Your task to perform on an android device: What time is it in Sydney? Image 0: 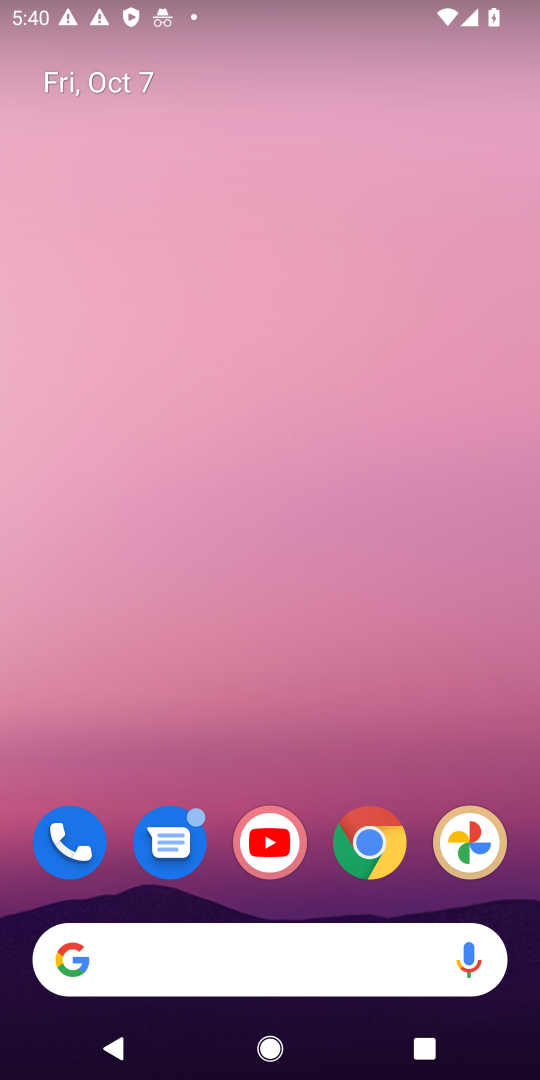
Step 0: drag from (230, 775) to (221, 134)
Your task to perform on an android device: What time is it in Sydney? Image 1: 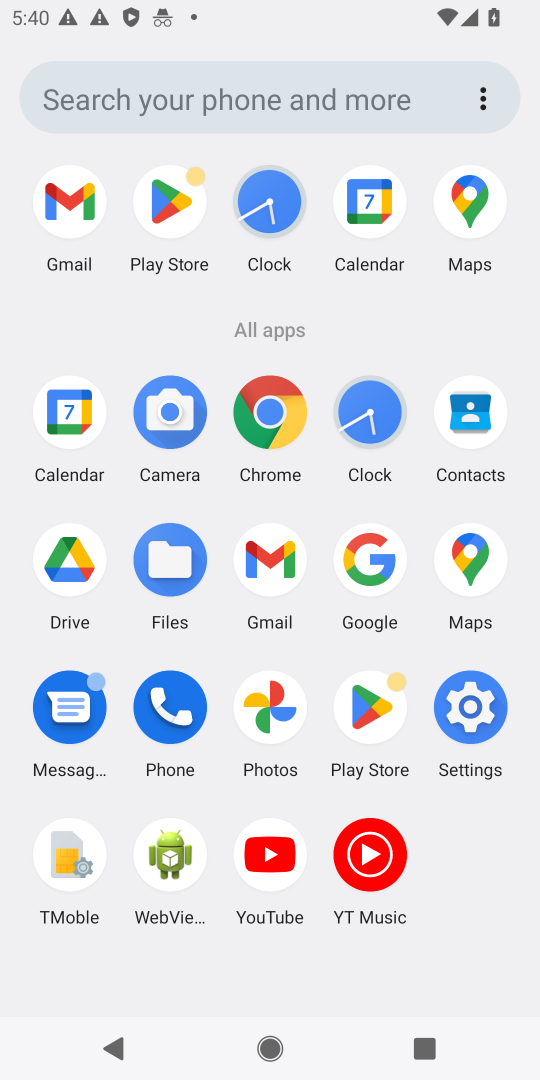
Step 1: click (382, 570)
Your task to perform on an android device: What time is it in Sydney? Image 2: 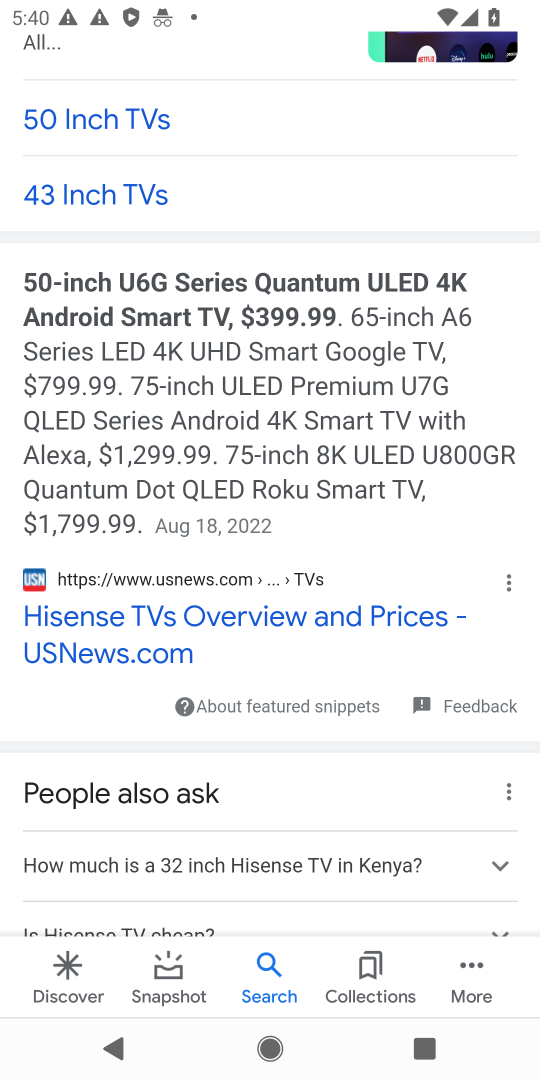
Step 2: drag from (207, 204) to (249, 935)
Your task to perform on an android device: What time is it in Sydney? Image 3: 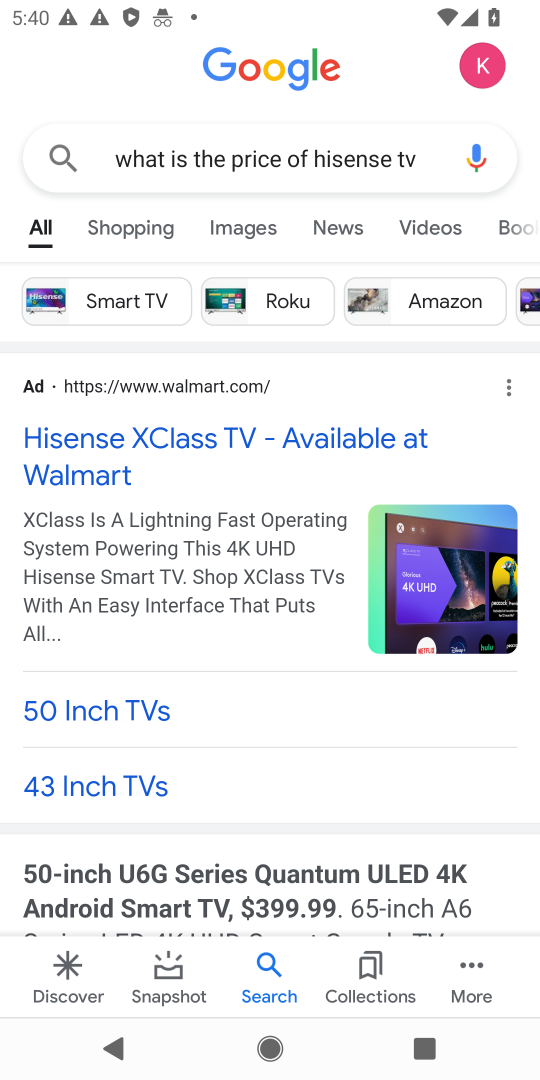
Step 3: drag from (208, 320) to (217, 895)
Your task to perform on an android device: What time is it in Sydney? Image 4: 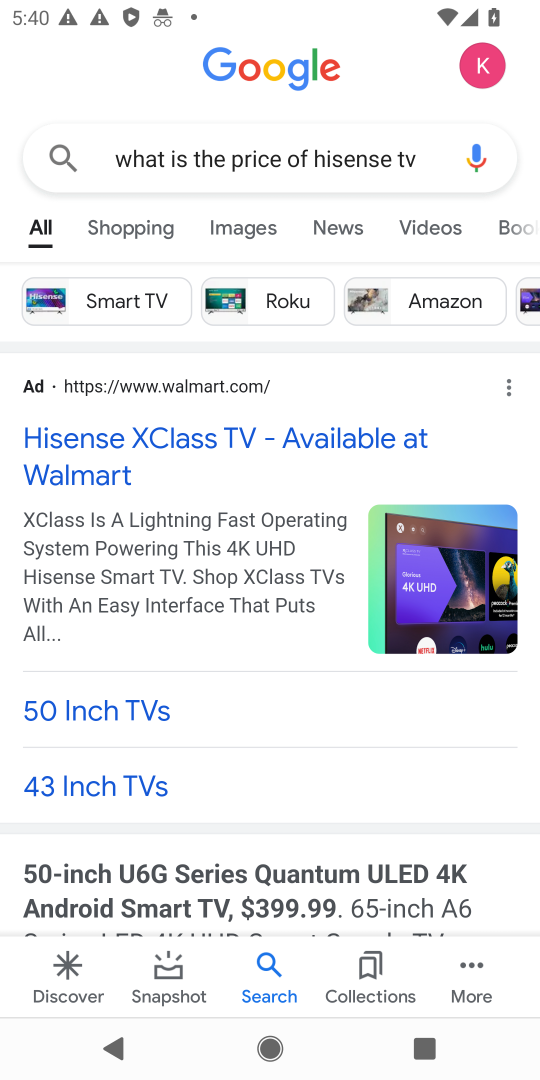
Step 4: click (423, 168)
Your task to perform on an android device: What time is it in Sydney? Image 5: 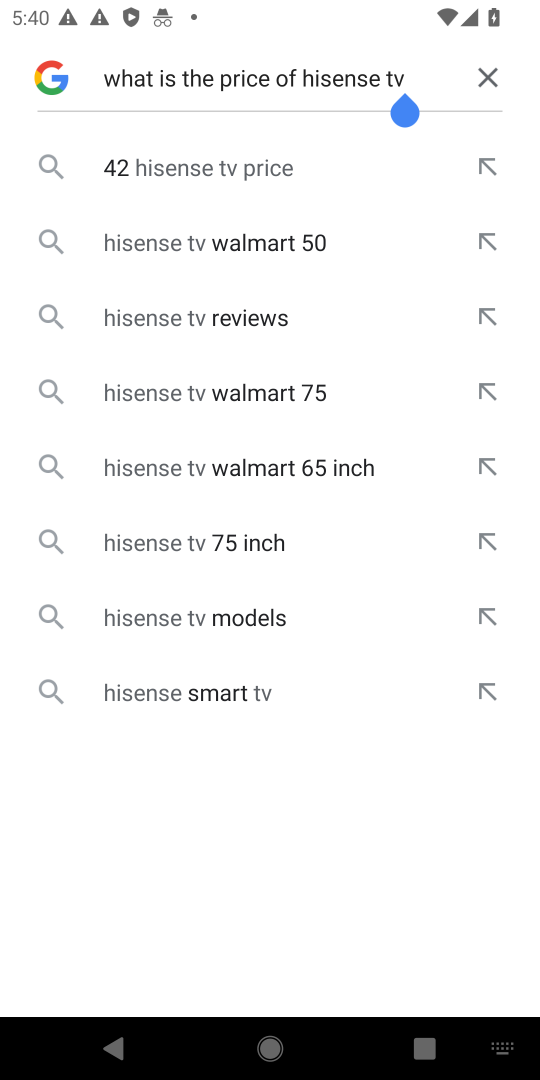
Step 5: click (481, 75)
Your task to perform on an android device: What time is it in Sydney? Image 6: 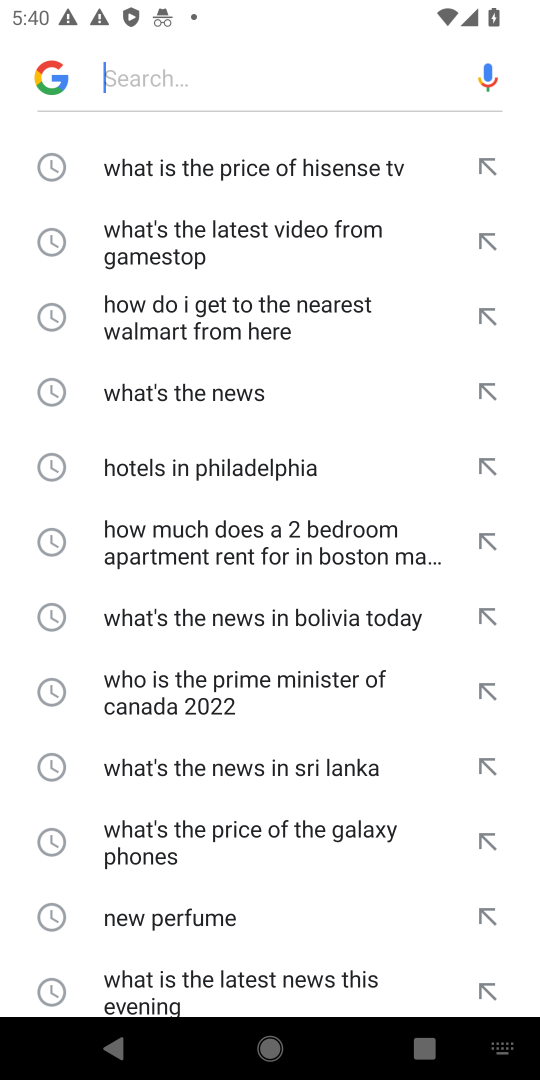
Step 6: click (215, 58)
Your task to perform on an android device: What time is it in Sydney? Image 7: 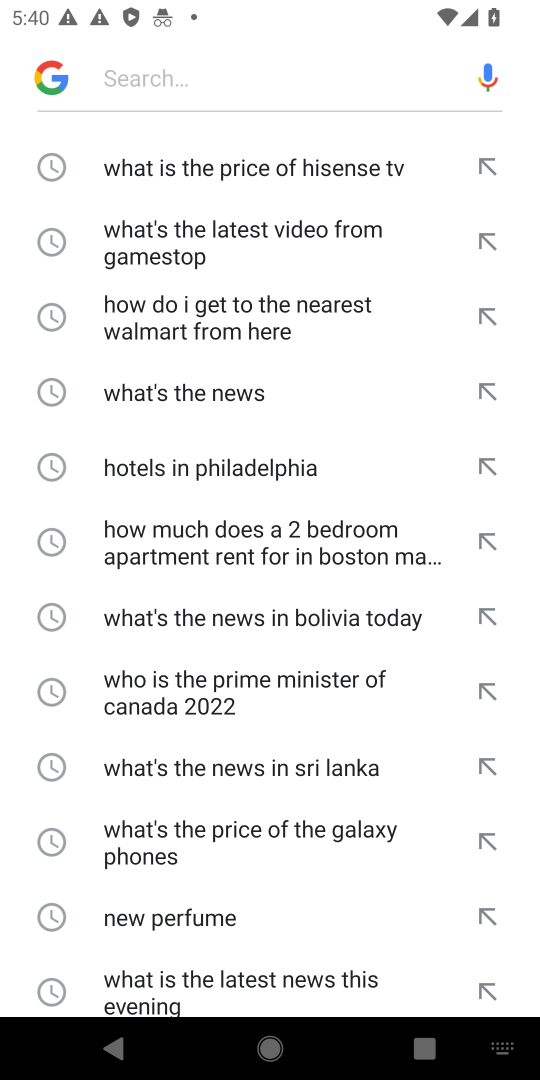
Step 7: type "What time is it in Sydney?"
Your task to perform on an android device: What time is it in Sydney? Image 8: 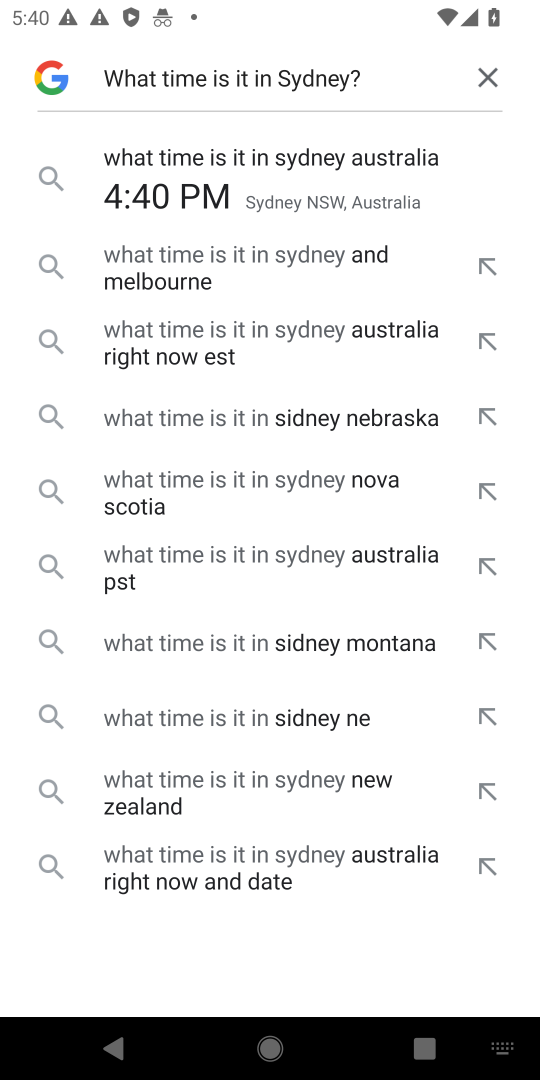
Step 8: click (295, 165)
Your task to perform on an android device: What time is it in Sydney? Image 9: 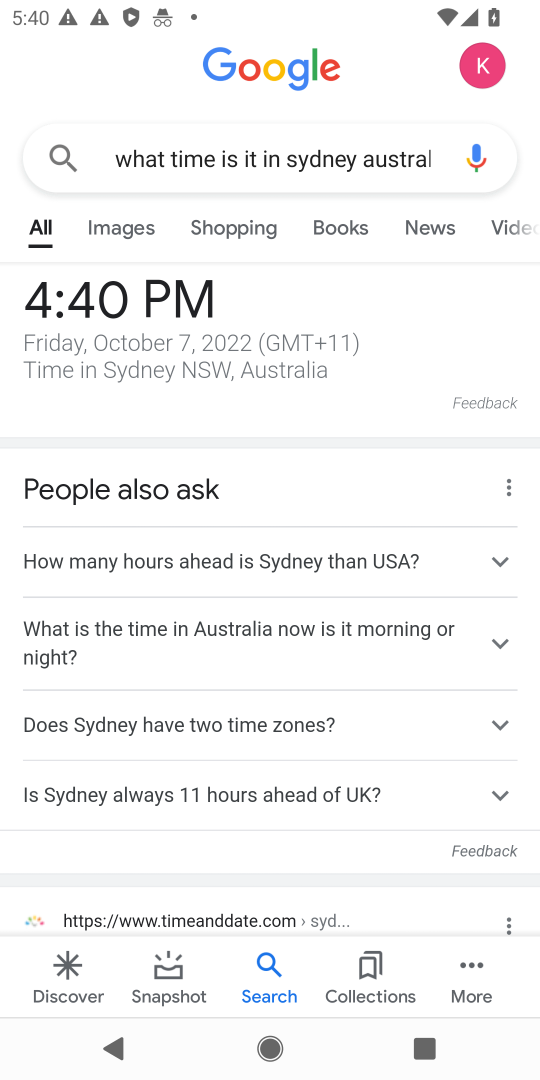
Step 9: task complete